Your task to perform on an android device: manage bookmarks in the chrome app Image 0: 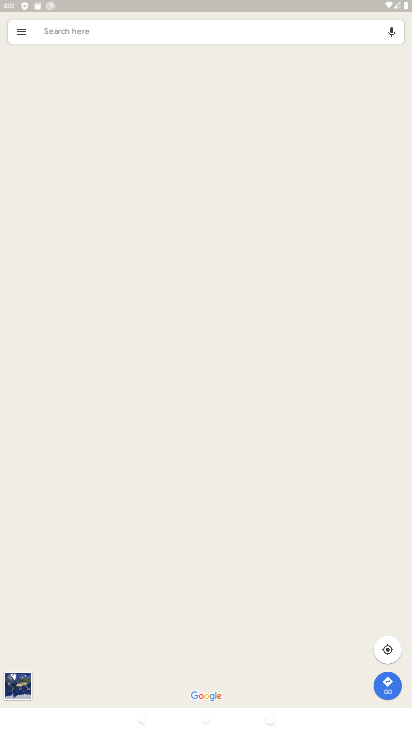
Step 0: drag from (219, 682) to (138, 252)
Your task to perform on an android device: manage bookmarks in the chrome app Image 1: 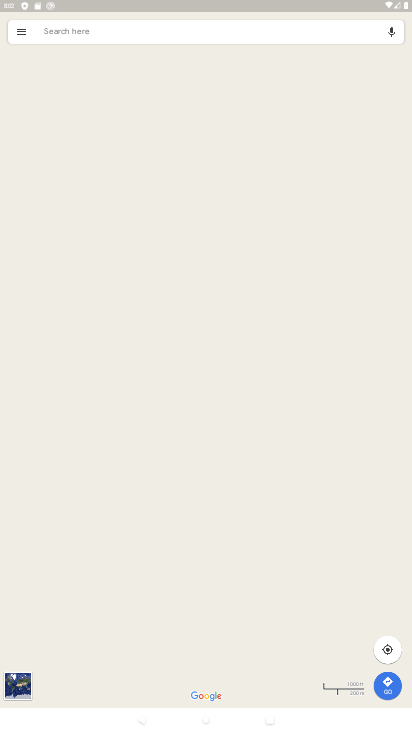
Step 1: press home button
Your task to perform on an android device: manage bookmarks in the chrome app Image 2: 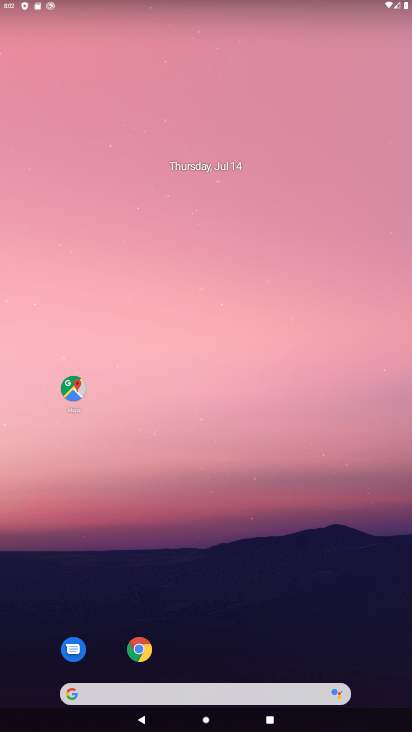
Step 2: drag from (146, 688) to (197, 310)
Your task to perform on an android device: manage bookmarks in the chrome app Image 3: 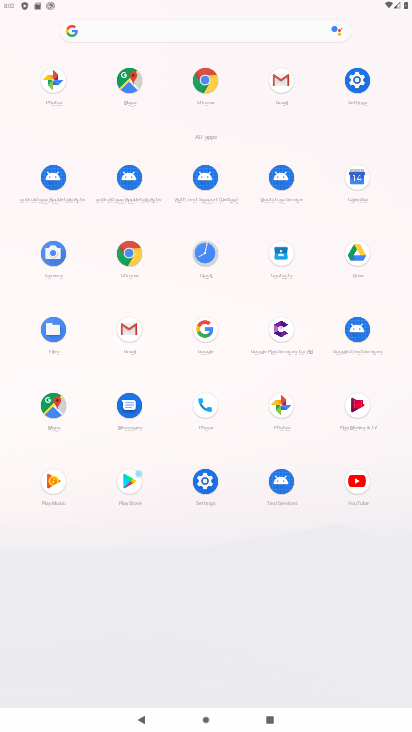
Step 3: click (200, 83)
Your task to perform on an android device: manage bookmarks in the chrome app Image 4: 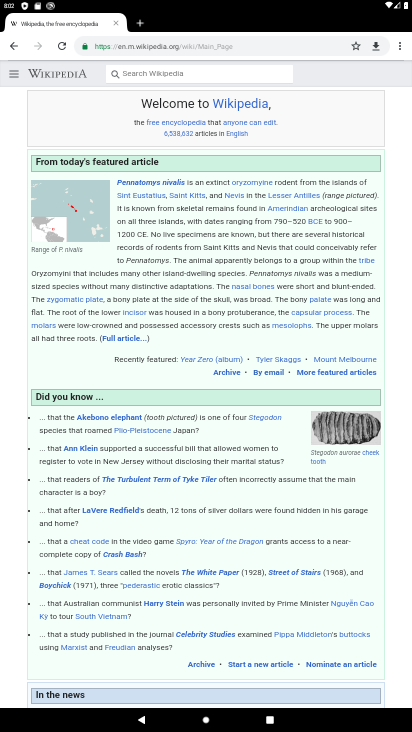
Step 4: click (400, 43)
Your task to perform on an android device: manage bookmarks in the chrome app Image 5: 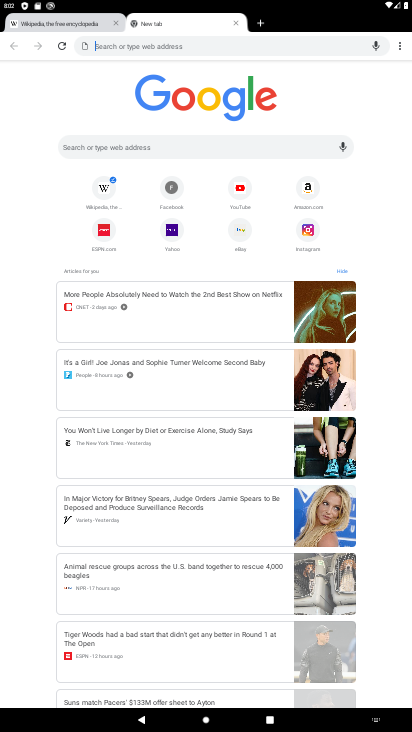
Step 5: click (400, 48)
Your task to perform on an android device: manage bookmarks in the chrome app Image 6: 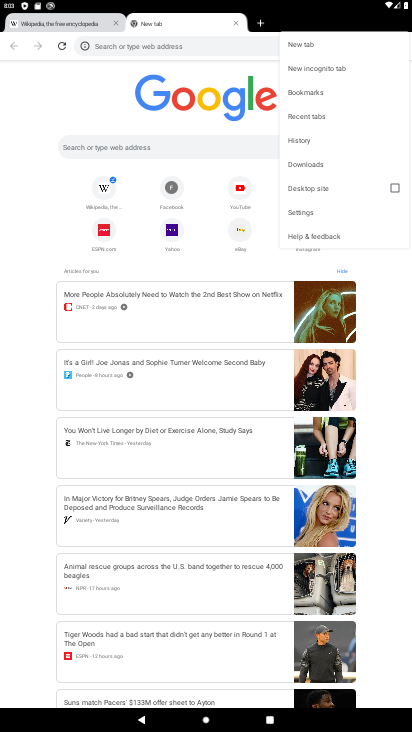
Step 6: click (312, 91)
Your task to perform on an android device: manage bookmarks in the chrome app Image 7: 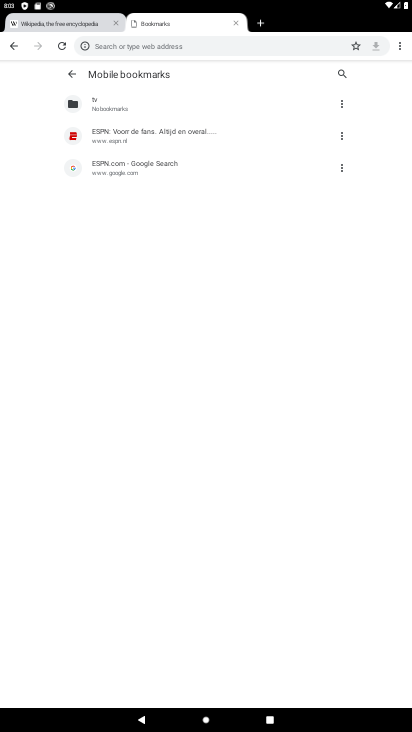
Step 7: click (127, 163)
Your task to perform on an android device: manage bookmarks in the chrome app Image 8: 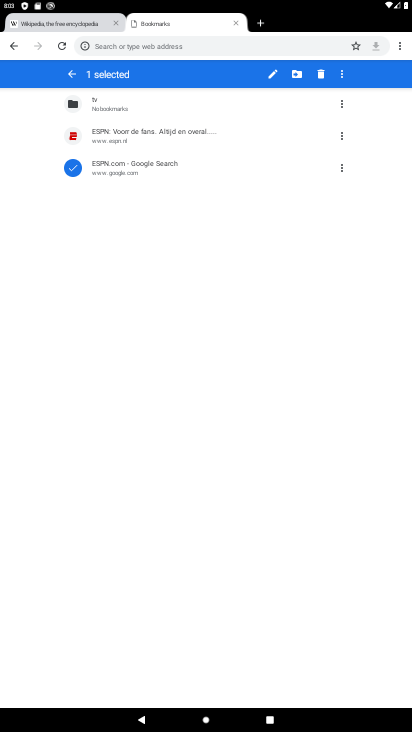
Step 8: click (317, 76)
Your task to perform on an android device: manage bookmarks in the chrome app Image 9: 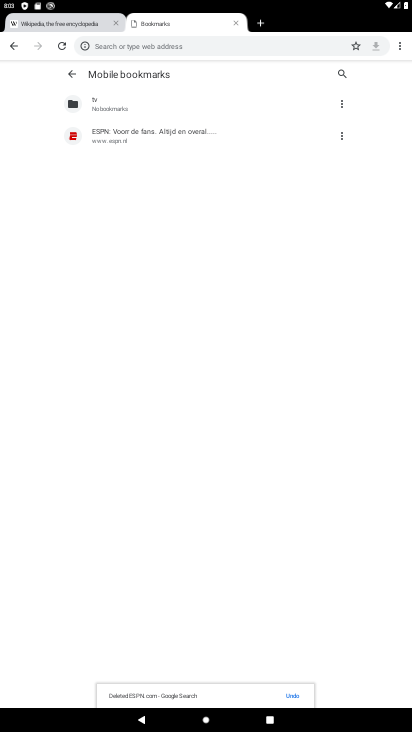
Step 9: task complete